Your task to perform on an android device: Go to display settings Image 0: 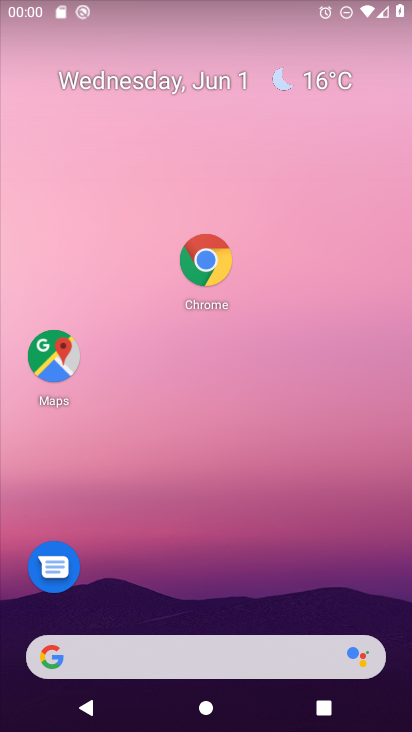
Step 0: drag from (188, 596) to (205, 290)
Your task to perform on an android device: Go to display settings Image 1: 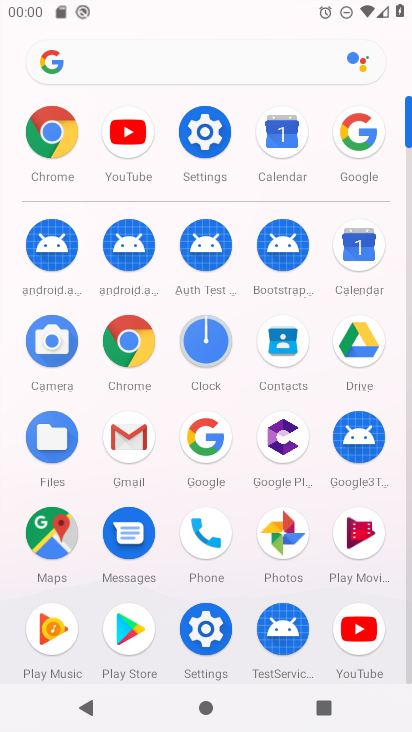
Step 1: click (213, 135)
Your task to perform on an android device: Go to display settings Image 2: 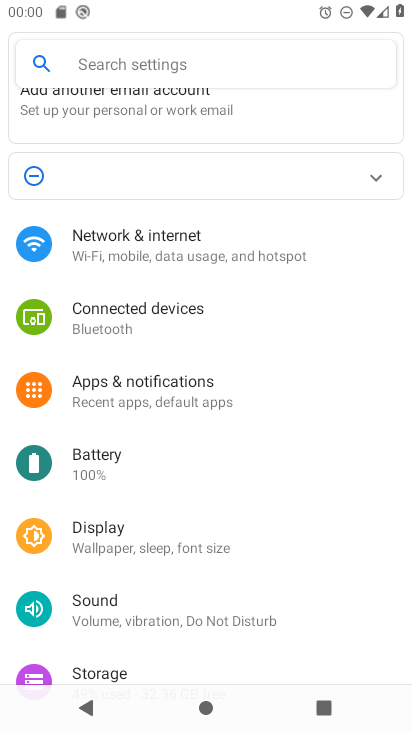
Step 2: click (106, 547)
Your task to perform on an android device: Go to display settings Image 3: 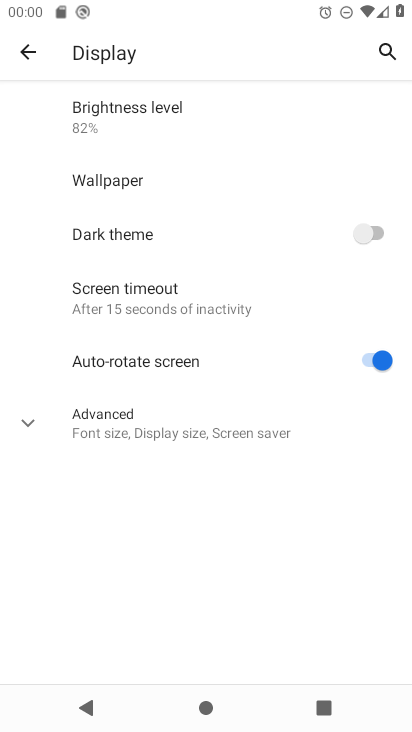
Step 3: click (129, 420)
Your task to perform on an android device: Go to display settings Image 4: 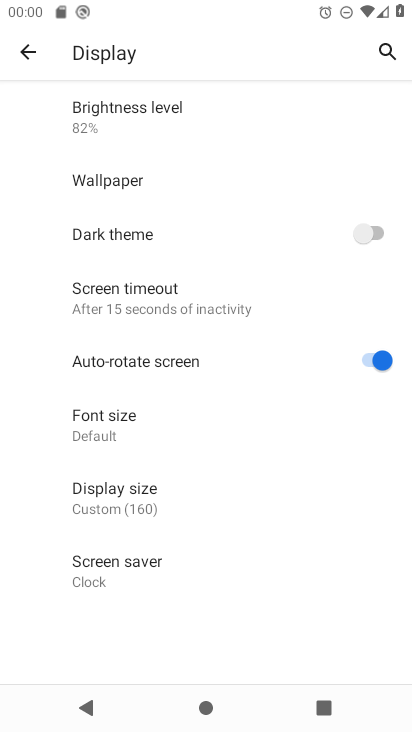
Step 4: task complete